Your task to perform on an android device: Open calendar and show me the third week of next month Image 0: 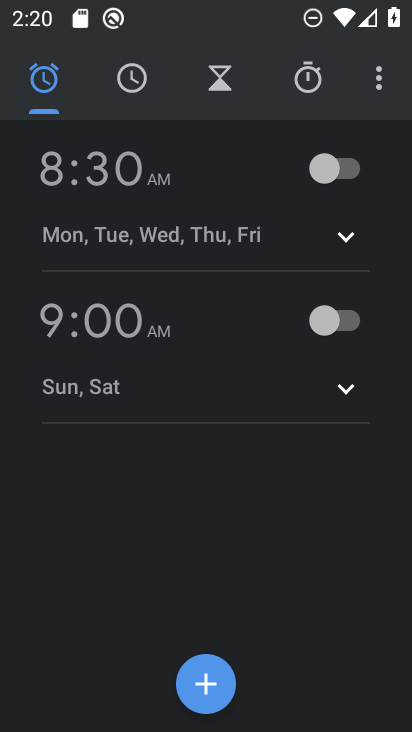
Step 0: press home button
Your task to perform on an android device: Open calendar and show me the third week of next month Image 1: 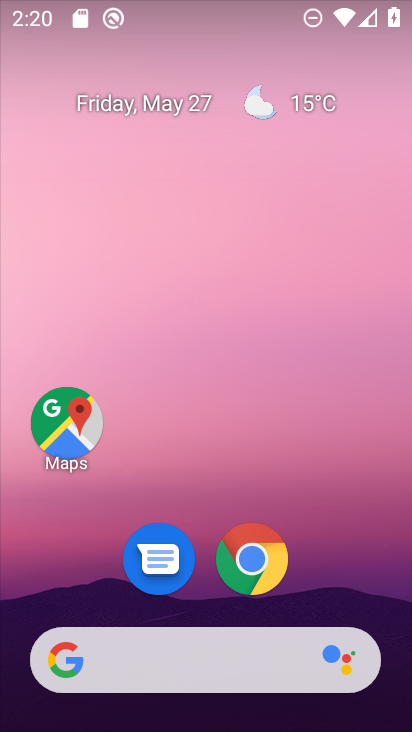
Step 1: drag from (267, 577) to (276, 12)
Your task to perform on an android device: Open calendar and show me the third week of next month Image 2: 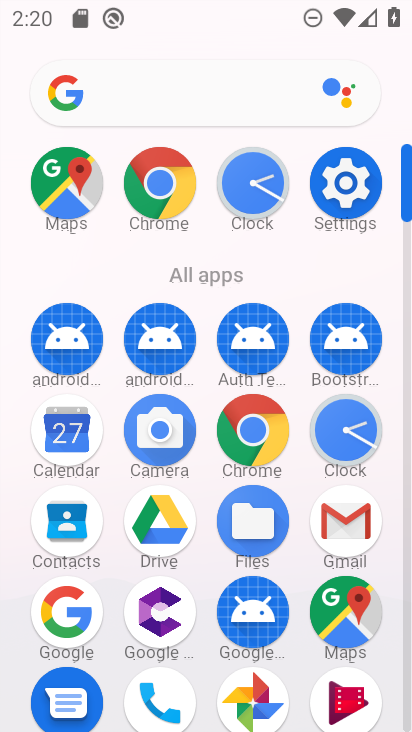
Step 2: click (68, 441)
Your task to perform on an android device: Open calendar and show me the third week of next month Image 3: 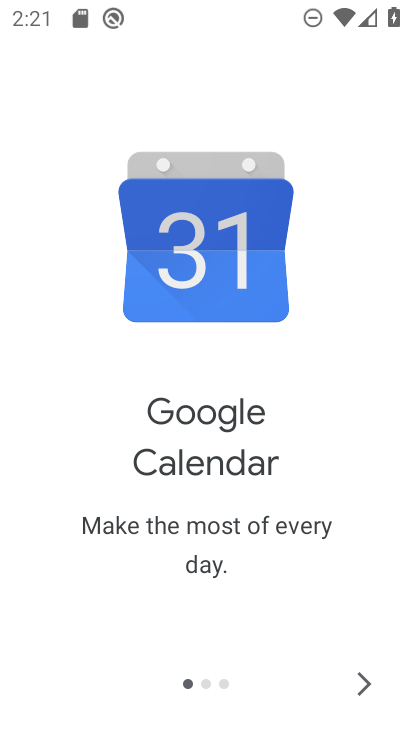
Step 3: click (365, 682)
Your task to perform on an android device: Open calendar and show me the third week of next month Image 4: 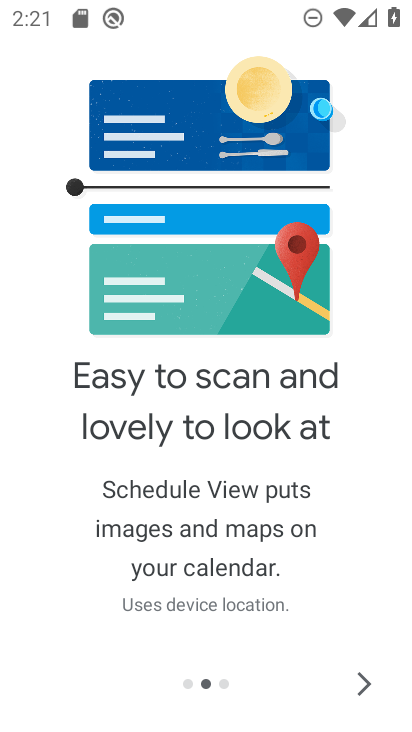
Step 4: click (365, 682)
Your task to perform on an android device: Open calendar and show me the third week of next month Image 5: 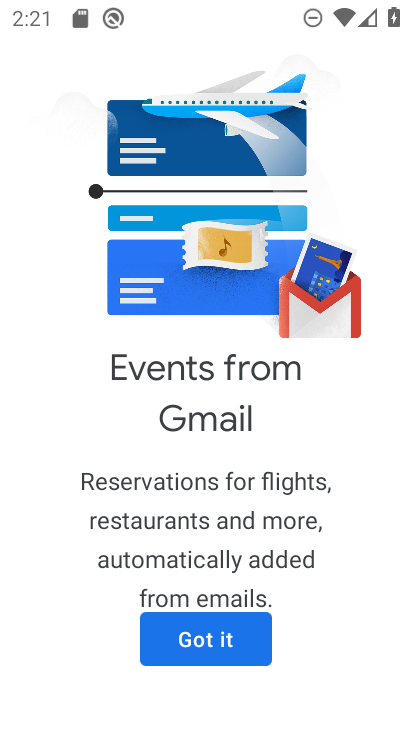
Step 5: click (196, 643)
Your task to perform on an android device: Open calendar and show me the third week of next month Image 6: 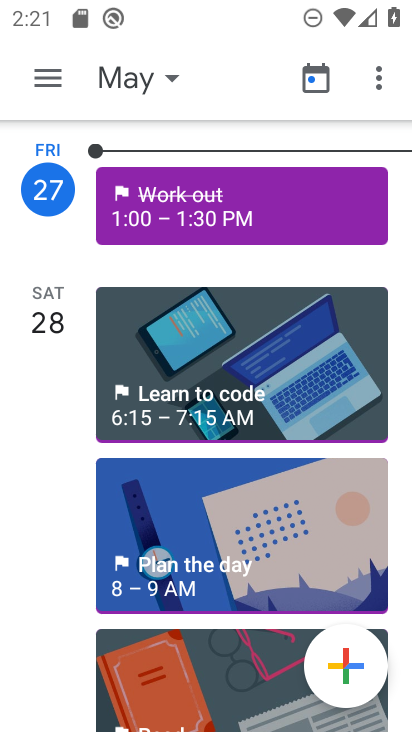
Step 6: click (173, 82)
Your task to perform on an android device: Open calendar and show me the third week of next month Image 7: 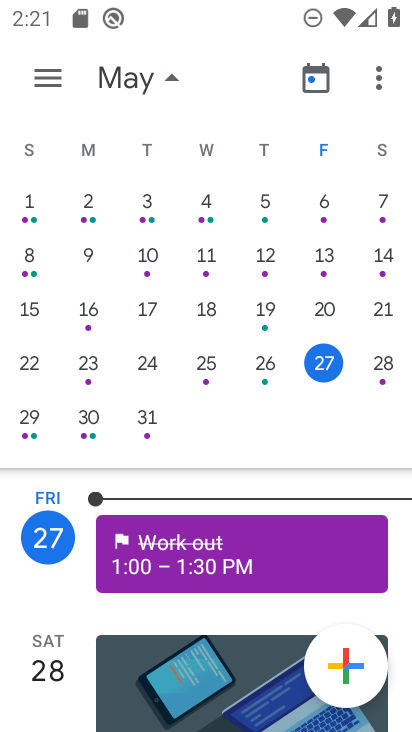
Step 7: drag from (360, 263) to (14, 322)
Your task to perform on an android device: Open calendar and show me the third week of next month Image 8: 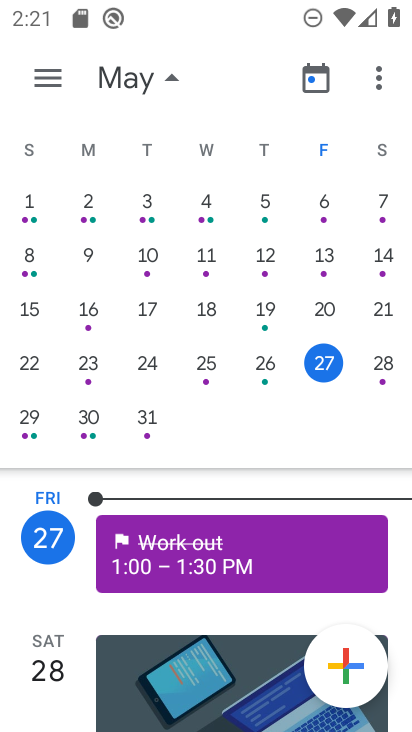
Step 8: drag from (337, 272) to (26, 297)
Your task to perform on an android device: Open calendar and show me the third week of next month Image 9: 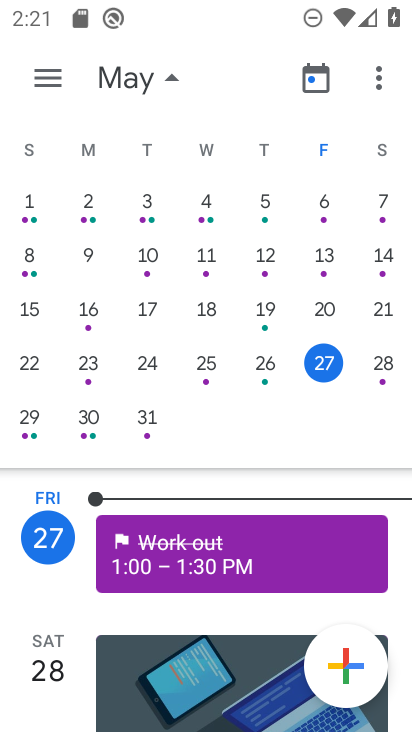
Step 9: drag from (284, 285) to (20, 301)
Your task to perform on an android device: Open calendar and show me the third week of next month Image 10: 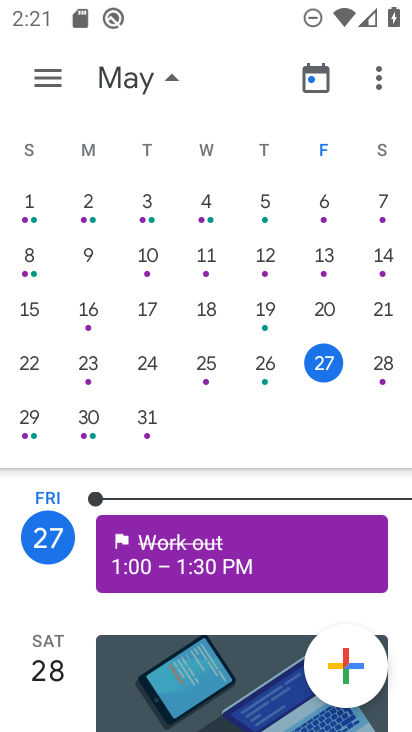
Step 10: drag from (376, 268) to (7, 264)
Your task to perform on an android device: Open calendar and show me the third week of next month Image 11: 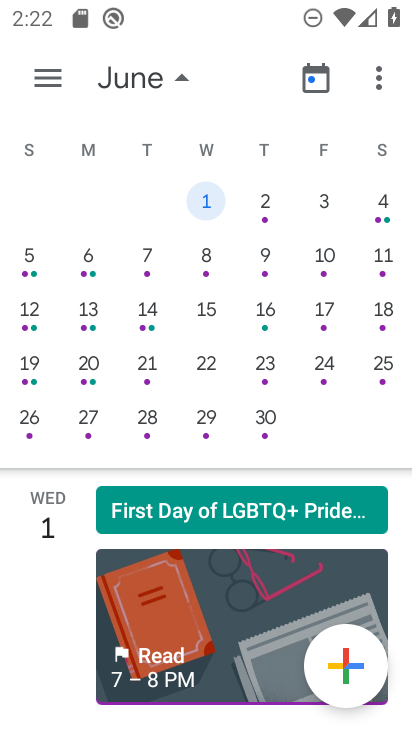
Step 11: click (214, 306)
Your task to perform on an android device: Open calendar and show me the third week of next month Image 12: 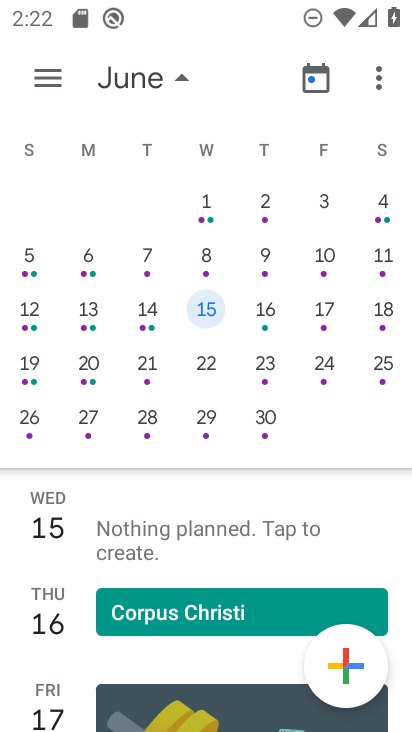
Step 12: click (44, 79)
Your task to perform on an android device: Open calendar and show me the third week of next month Image 13: 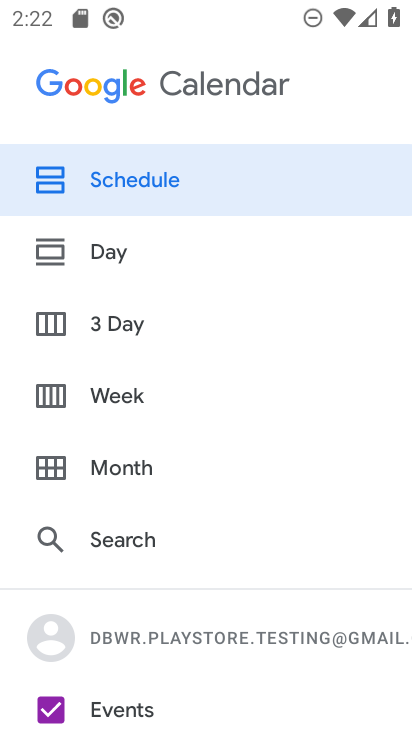
Step 13: click (131, 403)
Your task to perform on an android device: Open calendar and show me the third week of next month Image 14: 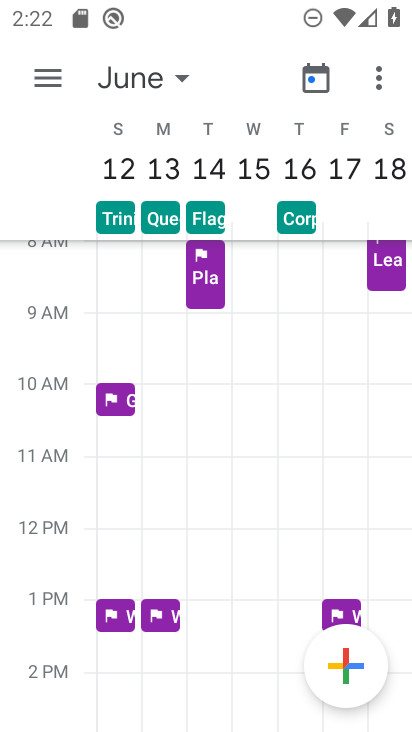
Step 14: task complete